Your task to perform on an android device: allow notifications from all sites in the chrome app Image 0: 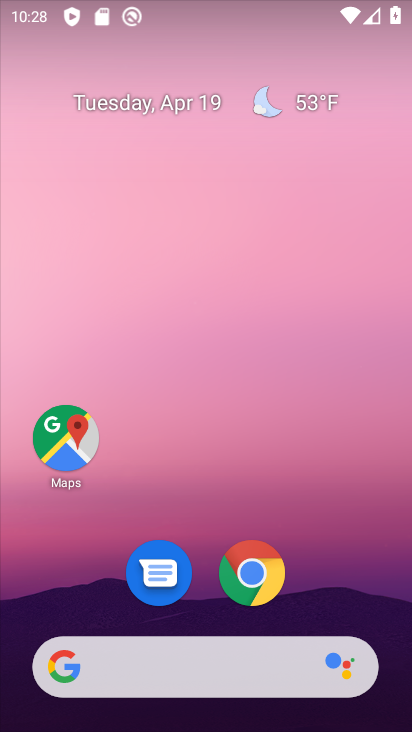
Step 0: click (250, 574)
Your task to perform on an android device: allow notifications from all sites in the chrome app Image 1: 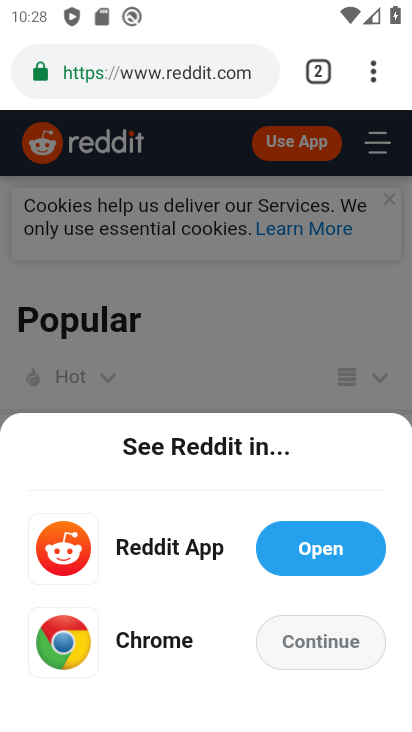
Step 1: click (373, 74)
Your task to perform on an android device: allow notifications from all sites in the chrome app Image 2: 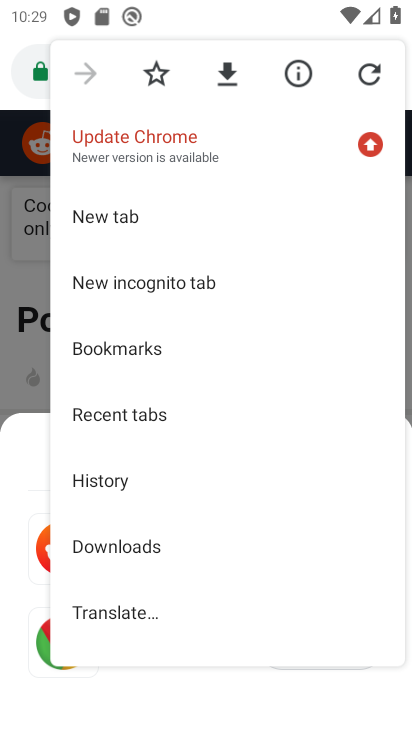
Step 2: drag from (186, 591) to (182, 168)
Your task to perform on an android device: allow notifications from all sites in the chrome app Image 3: 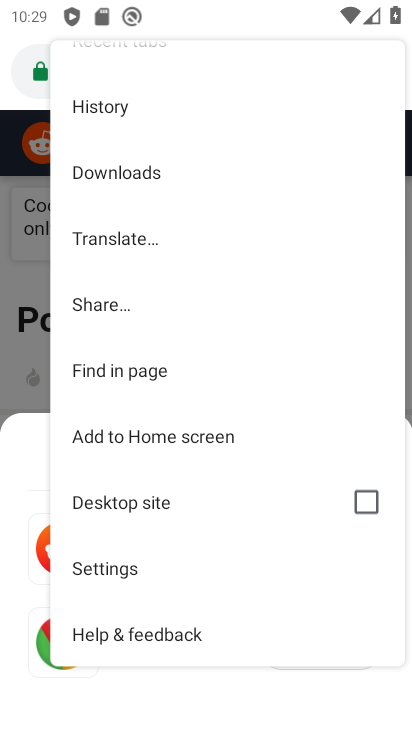
Step 3: click (119, 570)
Your task to perform on an android device: allow notifications from all sites in the chrome app Image 4: 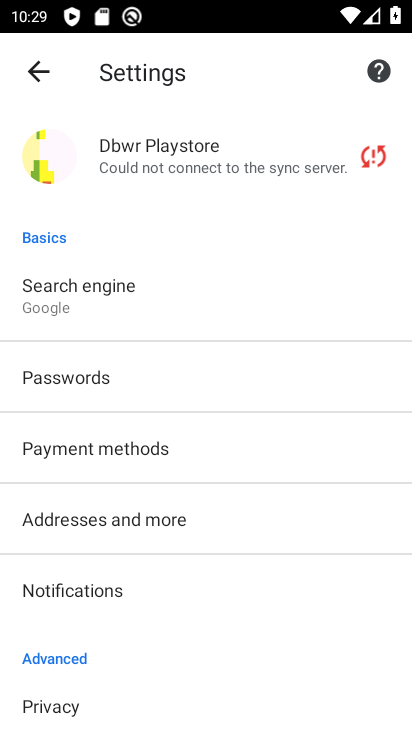
Step 4: click (107, 587)
Your task to perform on an android device: allow notifications from all sites in the chrome app Image 5: 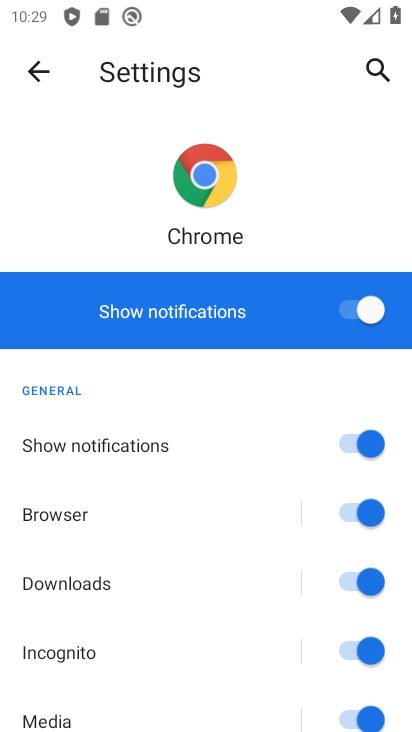
Step 5: task complete